Your task to perform on an android device: Open Google Image 0: 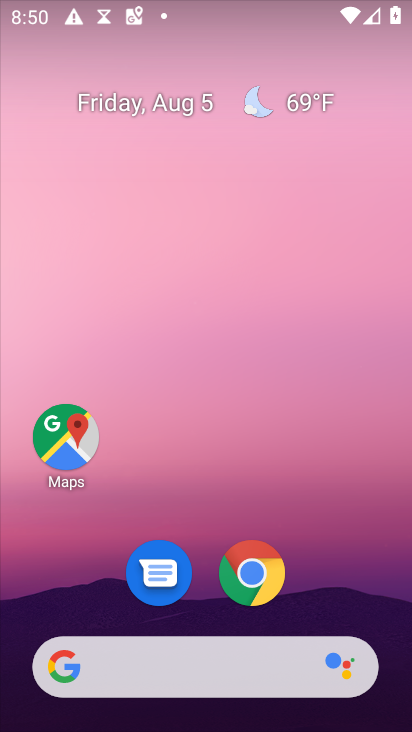
Step 0: drag from (177, 670) to (219, 149)
Your task to perform on an android device: Open Google Image 1: 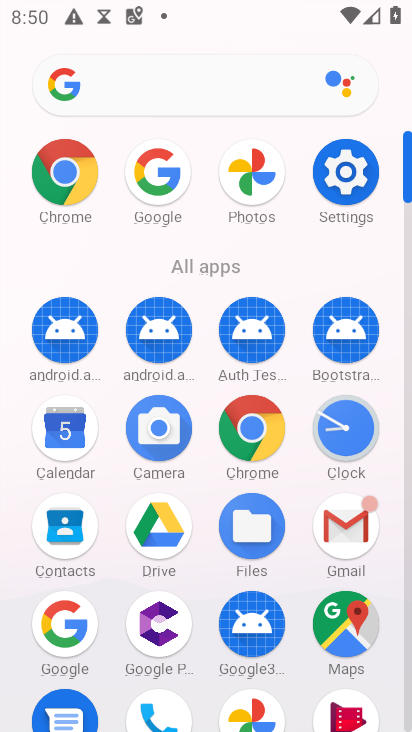
Step 1: click (156, 176)
Your task to perform on an android device: Open Google Image 2: 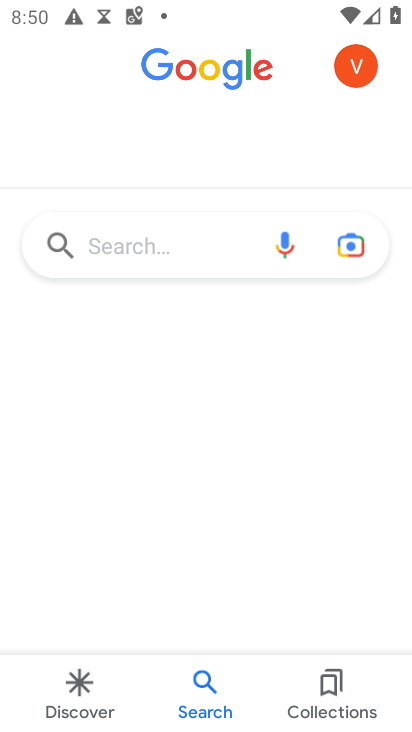
Step 2: task complete